Your task to perform on an android device: Open eBay Image 0: 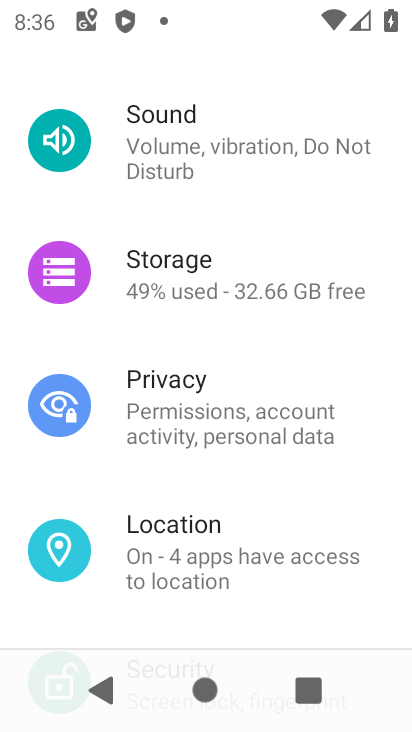
Step 0: press home button
Your task to perform on an android device: Open eBay Image 1: 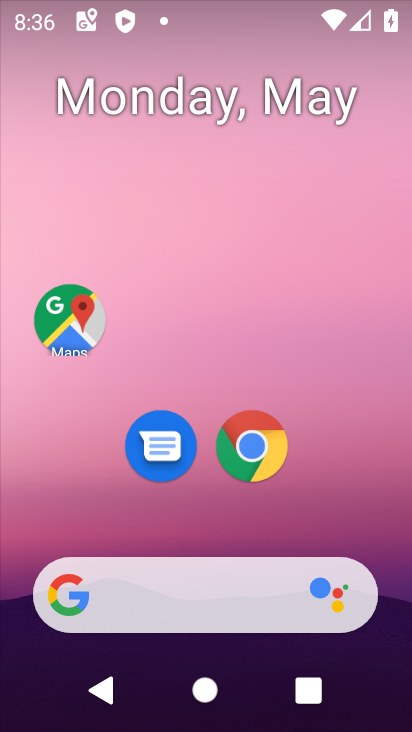
Step 1: click (249, 437)
Your task to perform on an android device: Open eBay Image 2: 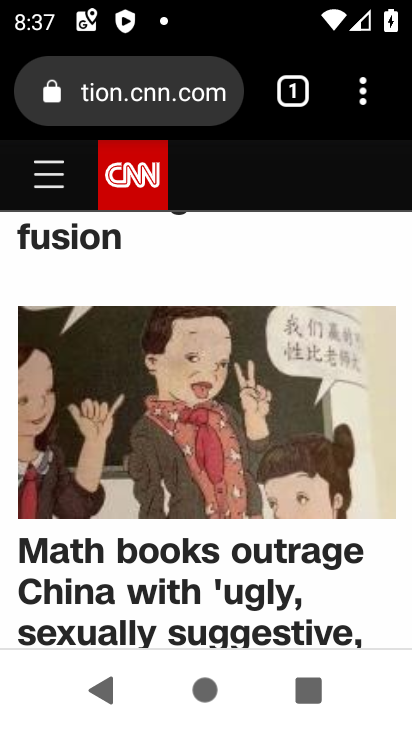
Step 2: click (293, 81)
Your task to perform on an android device: Open eBay Image 3: 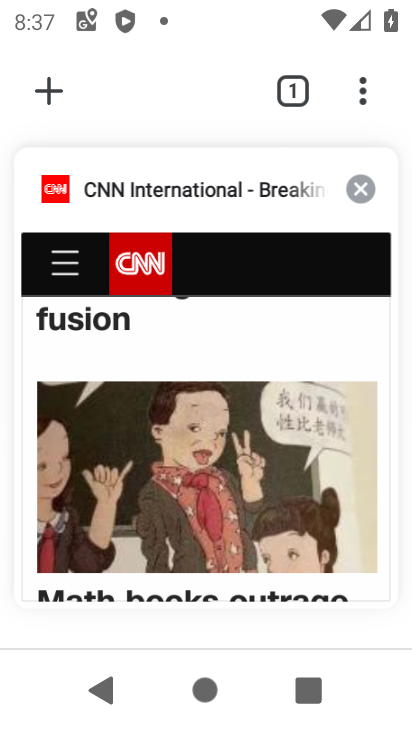
Step 3: click (360, 191)
Your task to perform on an android device: Open eBay Image 4: 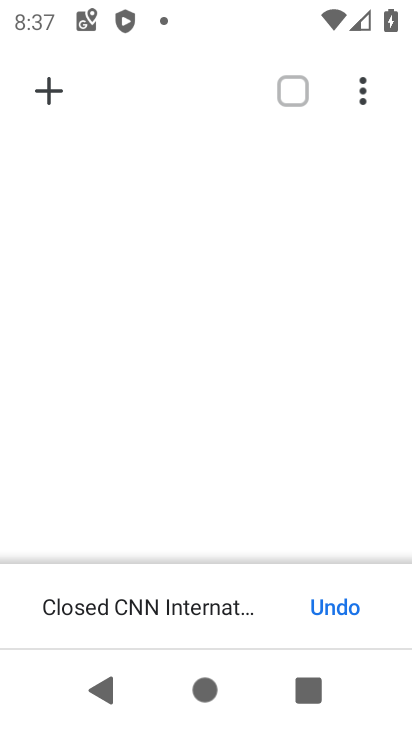
Step 4: click (54, 96)
Your task to perform on an android device: Open eBay Image 5: 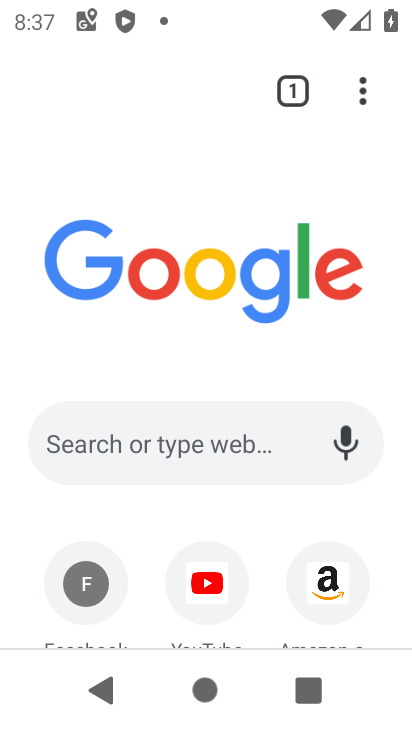
Step 5: click (140, 434)
Your task to perform on an android device: Open eBay Image 6: 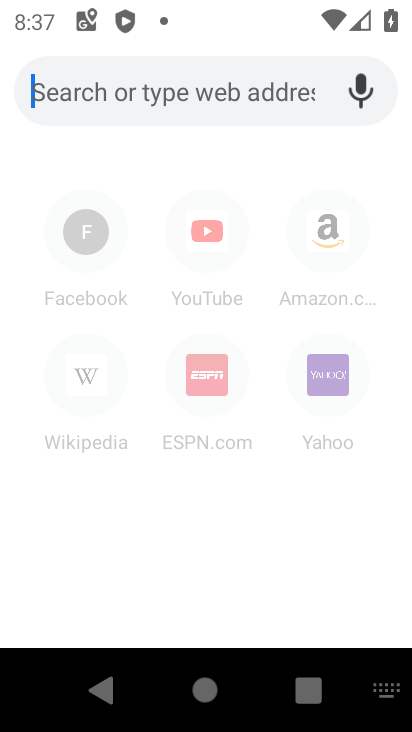
Step 6: type "ebay"
Your task to perform on an android device: Open eBay Image 7: 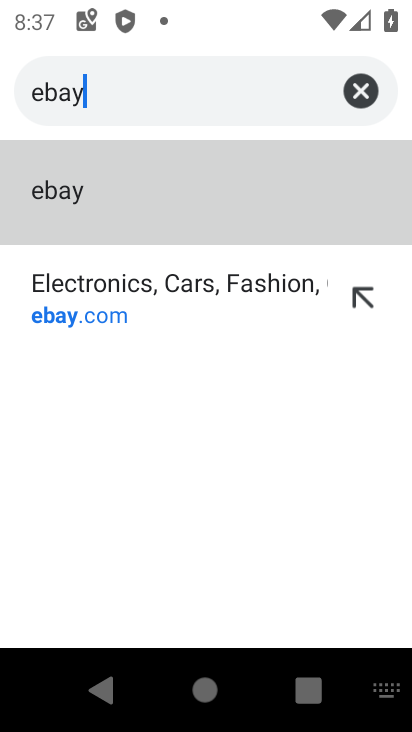
Step 7: type ""
Your task to perform on an android device: Open eBay Image 8: 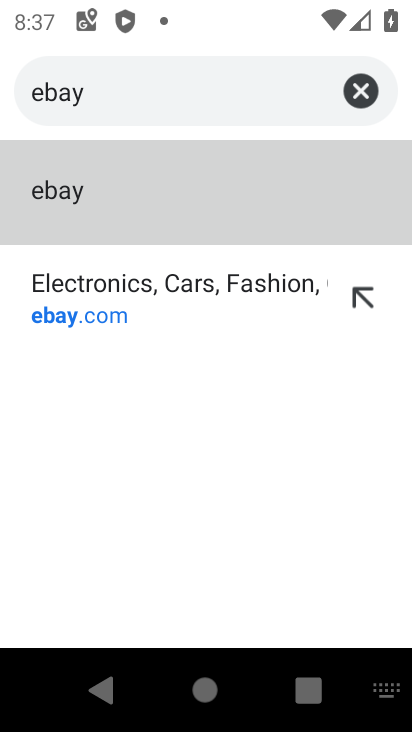
Step 8: click (152, 311)
Your task to perform on an android device: Open eBay Image 9: 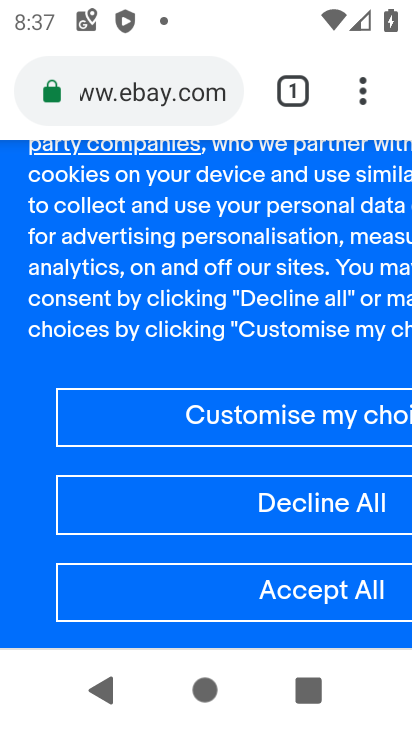
Step 9: click (300, 598)
Your task to perform on an android device: Open eBay Image 10: 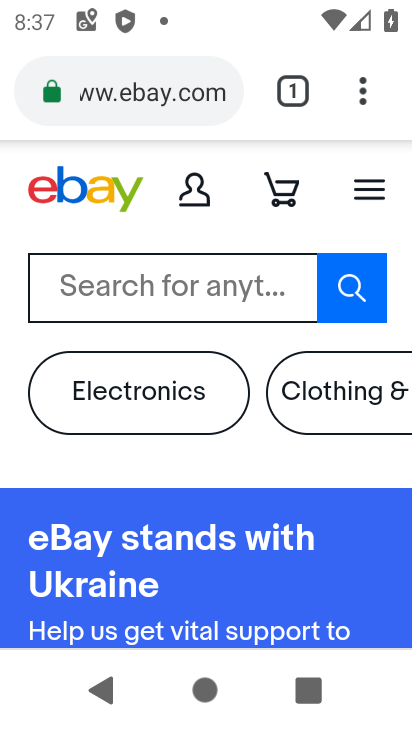
Step 10: task complete